Your task to perform on an android device: delete the emails in spam in the gmail app Image 0: 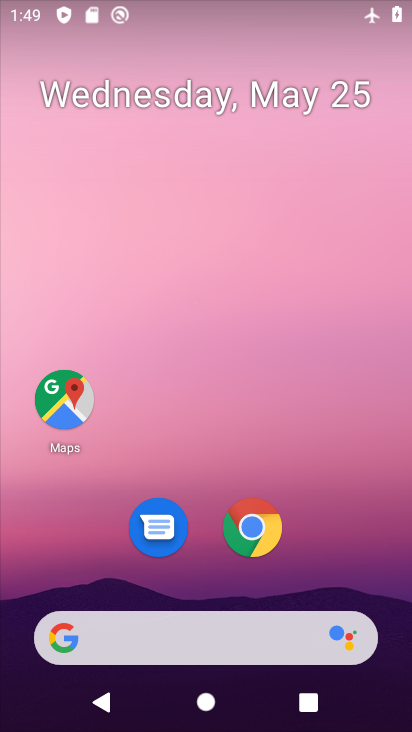
Step 0: drag from (188, 583) to (299, 51)
Your task to perform on an android device: delete the emails in spam in the gmail app Image 1: 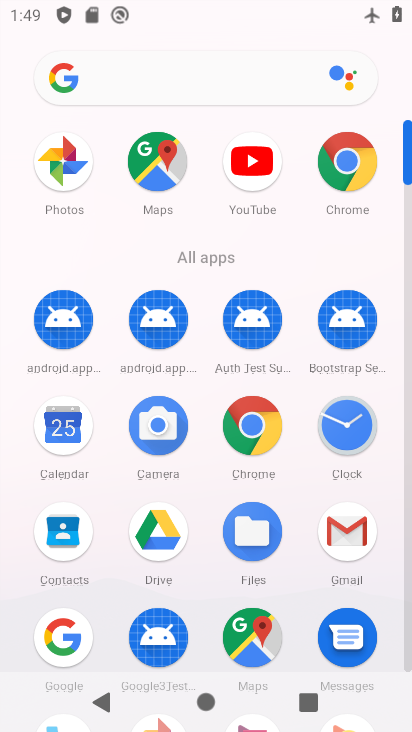
Step 1: click (355, 529)
Your task to perform on an android device: delete the emails in spam in the gmail app Image 2: 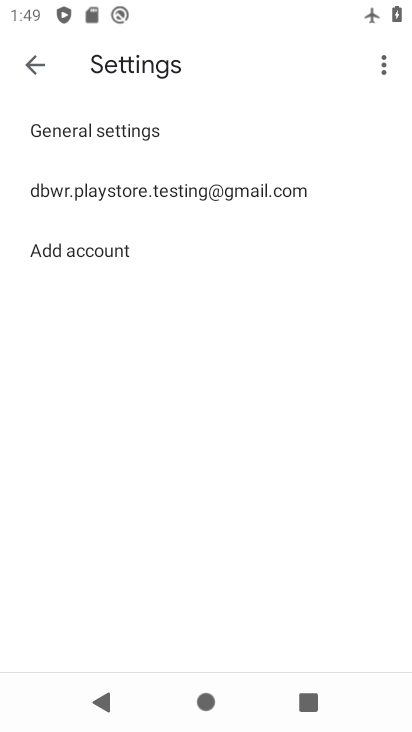
Step 2: click (33, 59)
Your task to perform on an android device: delete the emails in spam in the gmail app Image 3: 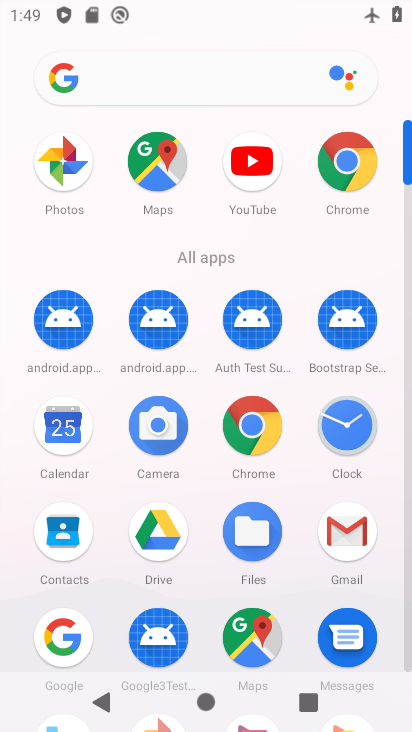
Step 3: click (338, 529)
Your task to perform on an android device: delete the emails in spam in the gmail app Image 4: 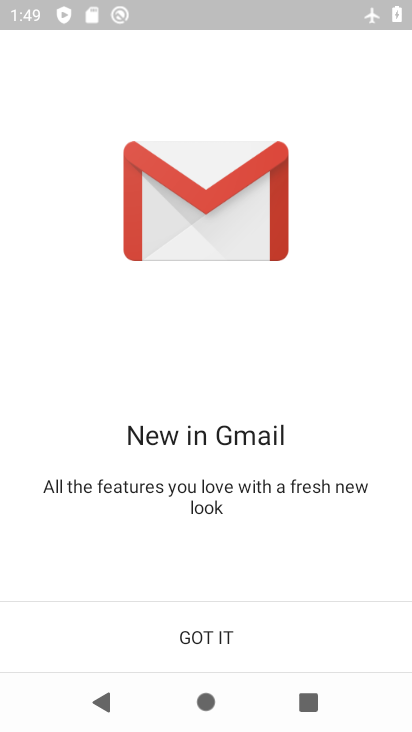
Step 4: click (194, 618)
Your task to perform on an android device: delete the emails in spam in the gmail app Image 5: 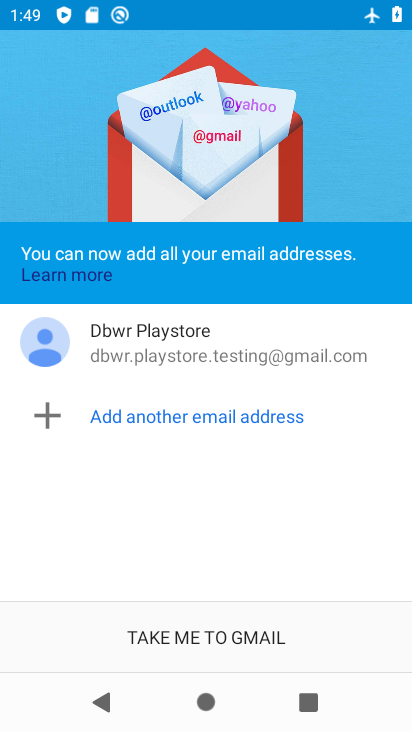
Step 5: click (189, 630)
Your task to perform on an android device: delete the emails in spam in the gmail app Image 6: 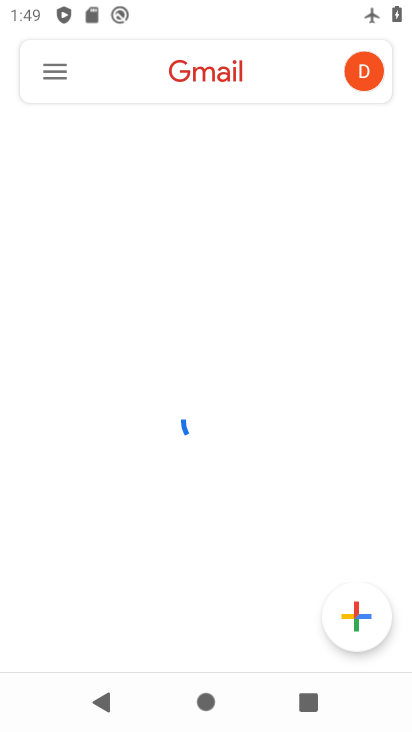
Step 6: click (43, 70)
Your task to perform on an android device: delete the emails in spam in the gmail app Image 7: 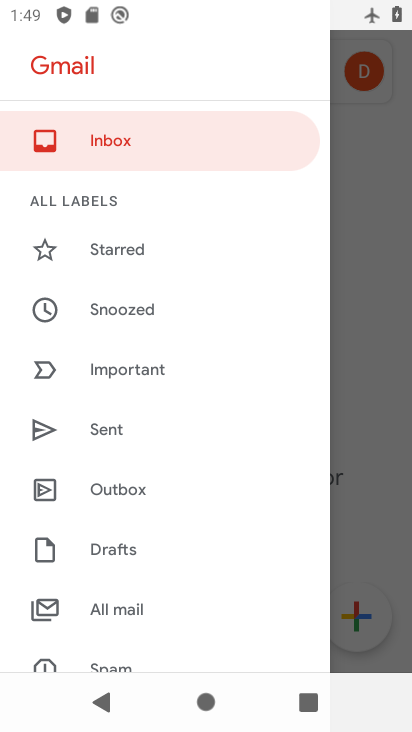
Step 7: click (125, 660)
Your task to perform on an android device: delete the emails in spam in the gmail app Image 8: 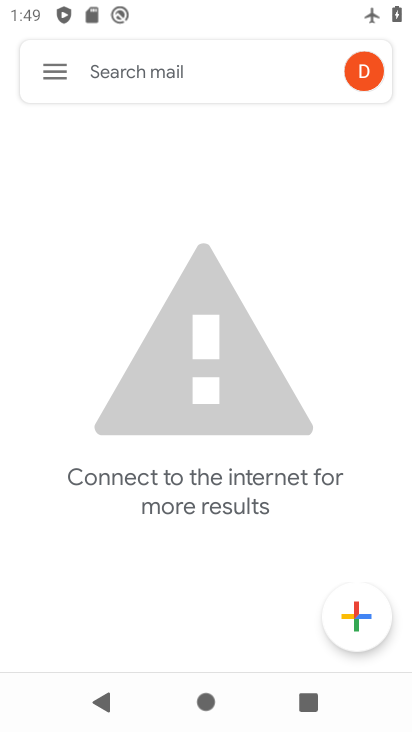
Step 8: task complete